Your task to perform on an android device: Open my contact list Image 0: 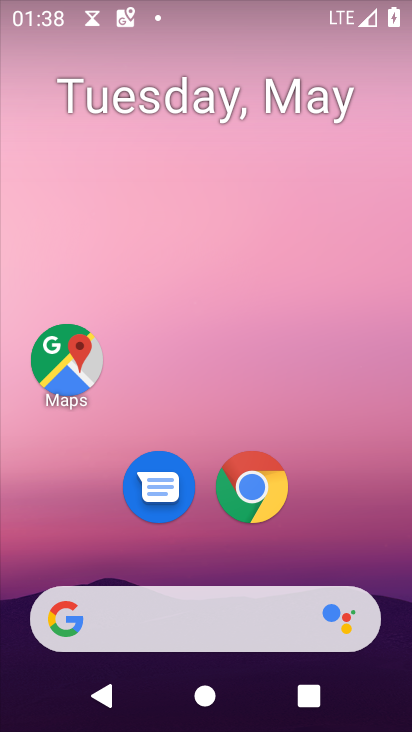
Step 0: drag from (237, 523) to (258, 20)
Your task to perform on an android device: Open my contact list Image 1: 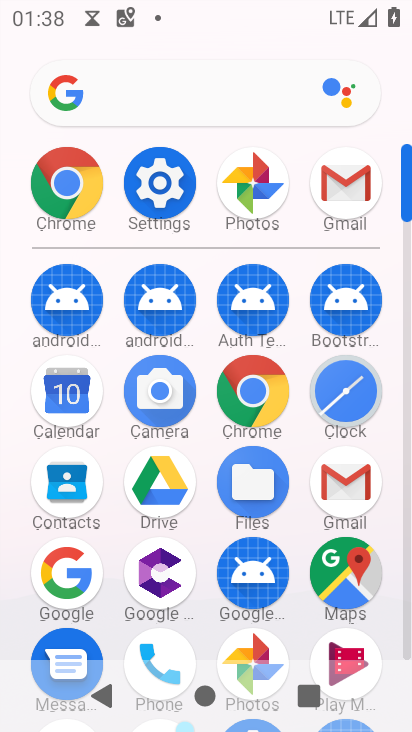
Step 1: click (48, 468)
Your task to perform on an android device: Open my contact list Image 2: 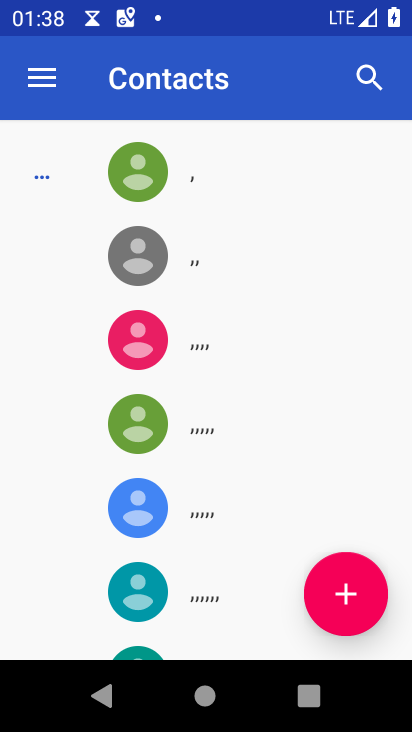
Step 2: task complete